Your task to perform on an android device: uninstall "Indeed Job Search" Image 0: 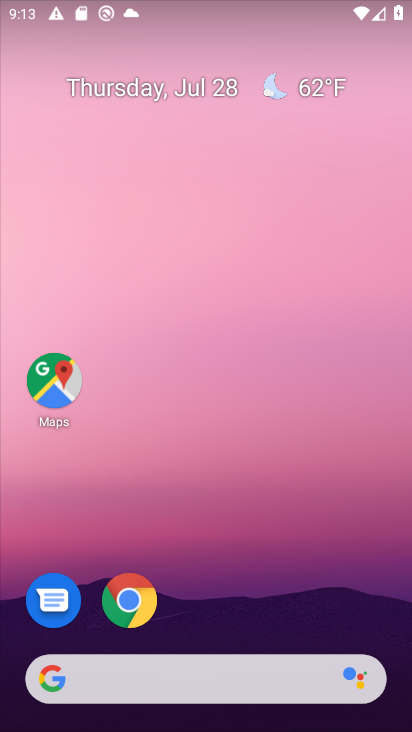
Step 0: drag from (242, 615) to (232, 11)
Your task to perform on an android device: uninstall "Indeed Job Search" Image 1: 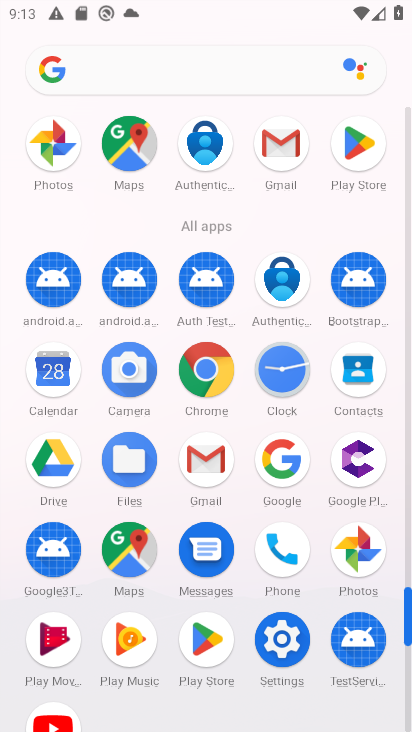
Step 1: click (347, 153)
Your task to perform on an android device: uninstall "Indeed Job Search" Image 2: 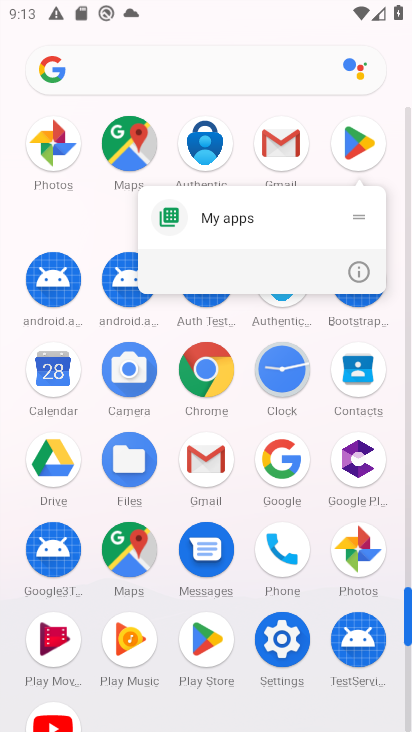
Step 2: click (359, 157)
Your task to perform on an android device: uninstall "Indeed Job Search" Image 3: 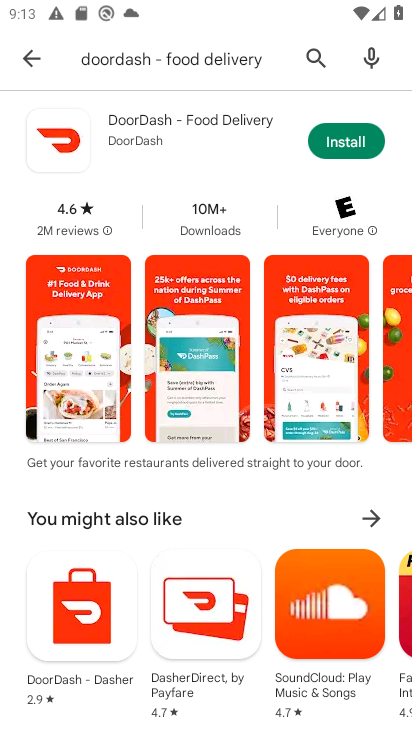
Step 3: click (313, 52)
Your task to perform on an android device: uninstall "Indeed Job Search" Image 4: 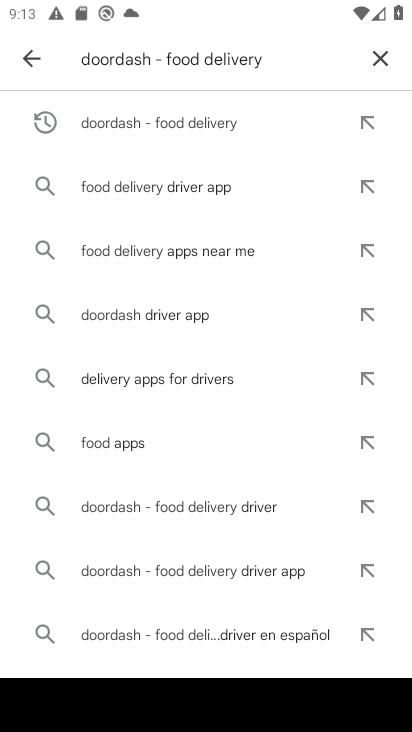
Step 4: click (376, 63)
Your task to perform on an android device: uninstall "Indeed Job Search" Image 5: 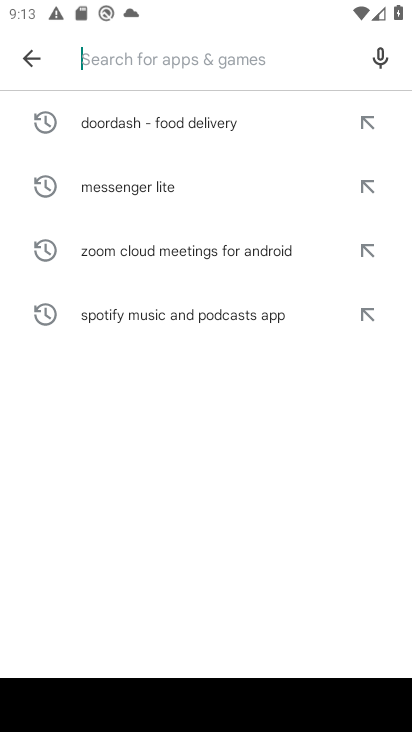
Step 5: click (197, 56)
Your task to perform on an android device: uninstall "Indeed Job Search" Image 6: 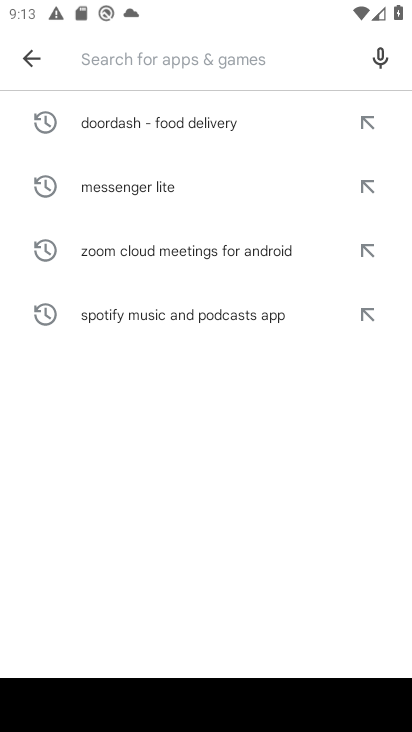
Step 6: type "Indeed Job Search"
Your task to perform on an android device: uninstall "Indeed Job Search" Image 7: 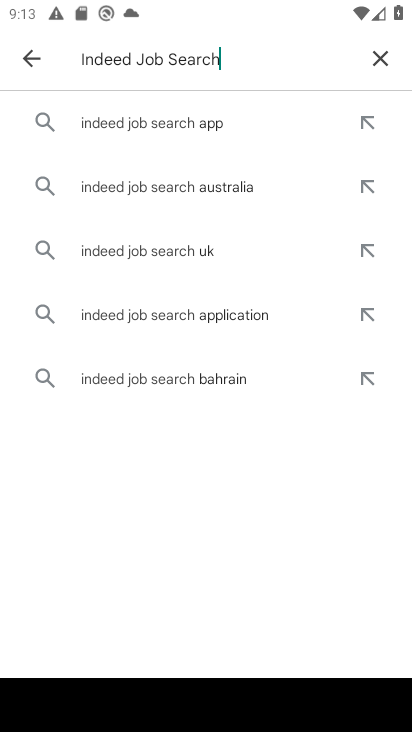
Step 7: click (158, 129)
Your task to perform on an android device: uninstall "Indeed Job Search" Image 8: 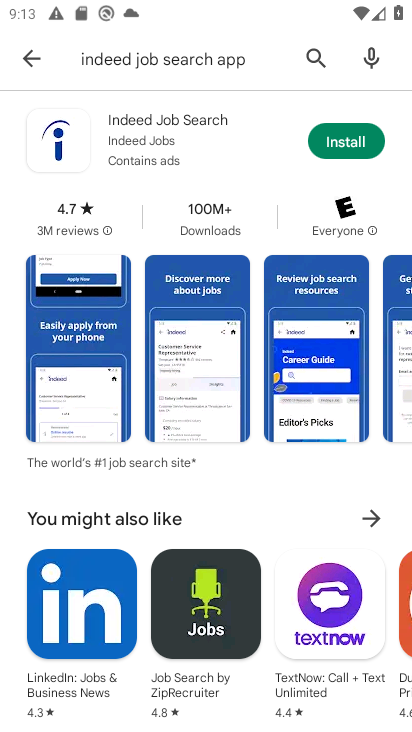
Step 8: task complete